Your task to perform on an android device: Go to Amazon Image 0: 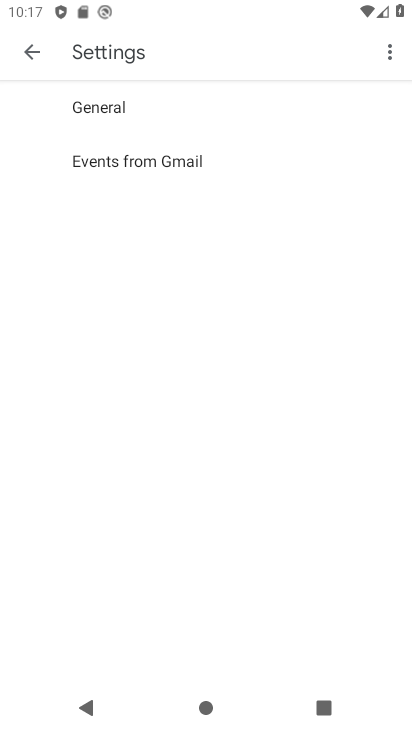
Step 0: press home button
Your task to perform on an android device: Go to Amazon Image 1: 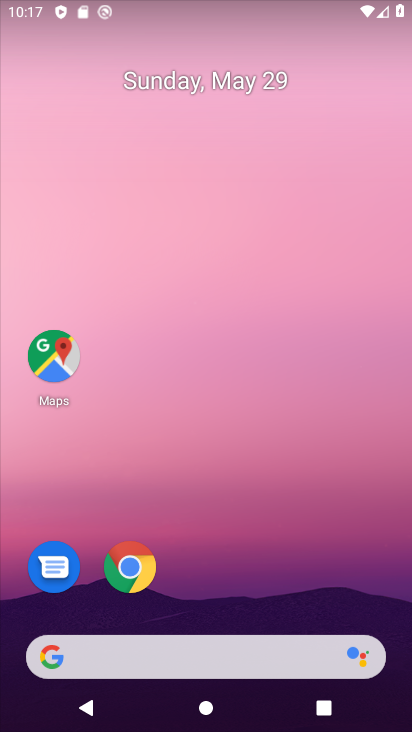
Step 1: click (129, 578)
Your task to perform on an android device: Go to Amazon Image 2: 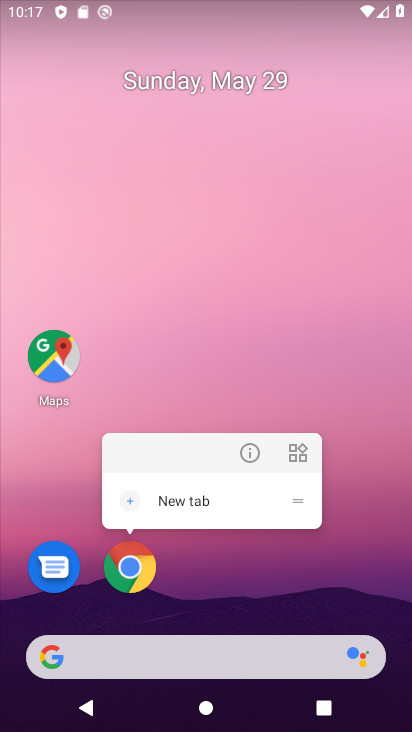
Step 2: click (132, 568)
Your task to perform on an android device: Go to Amazon Image 3: 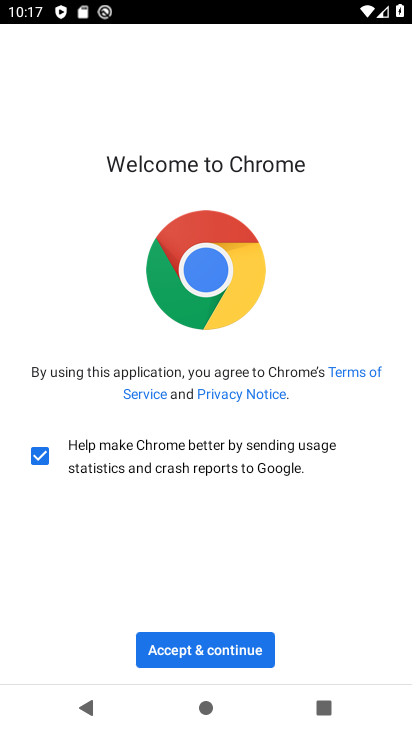
Step 3: click (215, 664)
Your task to perform on an android device: Go to Amazon Image 4: 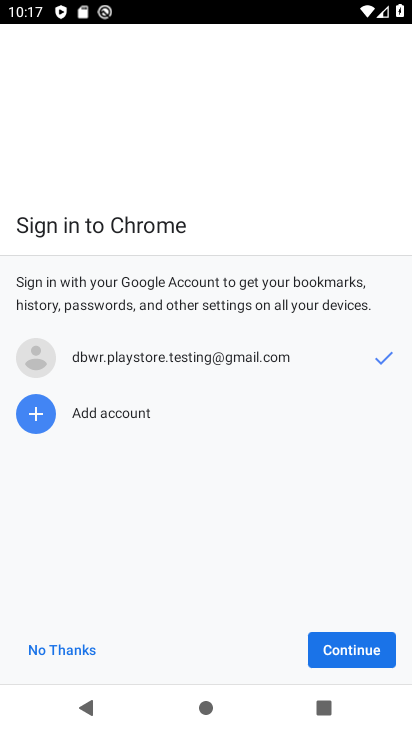
Step 4: click (376, 660)
Your task to perform on an android device: Go to Amazon Image 5: 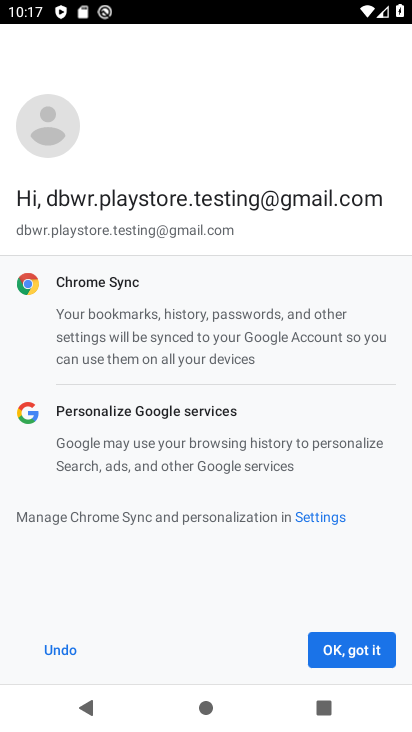
Step 5: click (376, 656)
Your task to perform on an android device: Go to Amazon Image 6: 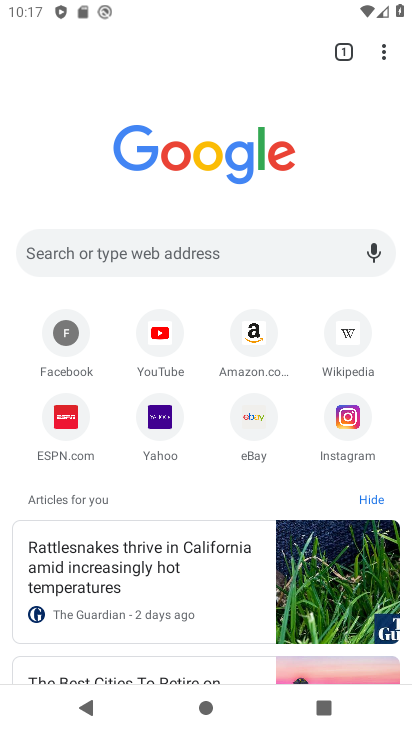
Step 6: click (257, 341)
Your task to perform on an android device: Go to Amazon Image 7: 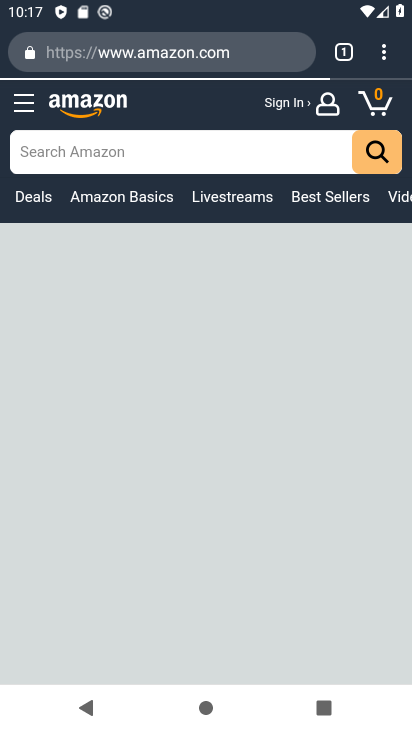
Step 7: task complete